Your task to perform on an android device: Go to Reddit.com Image 0: 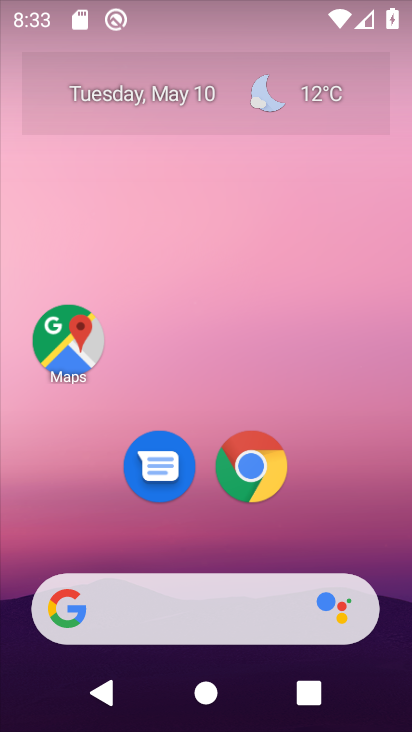
Step 0: click (251, 451)
Your task to perform on an android device: Go to Reddit.com Image 1: 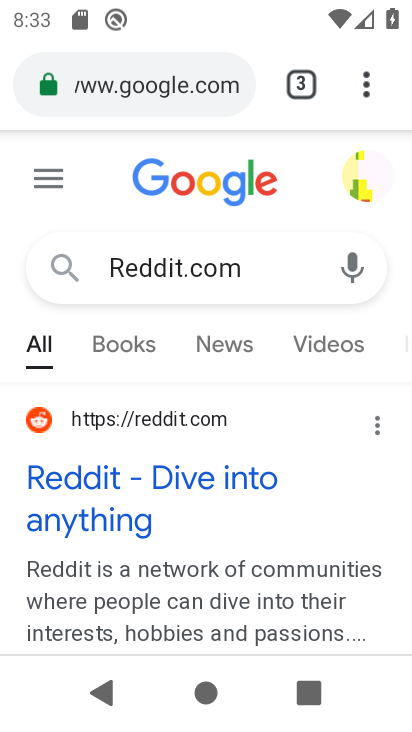
Step 1: task complete